Your task to perform on an android device: Open Amazon Image 0: 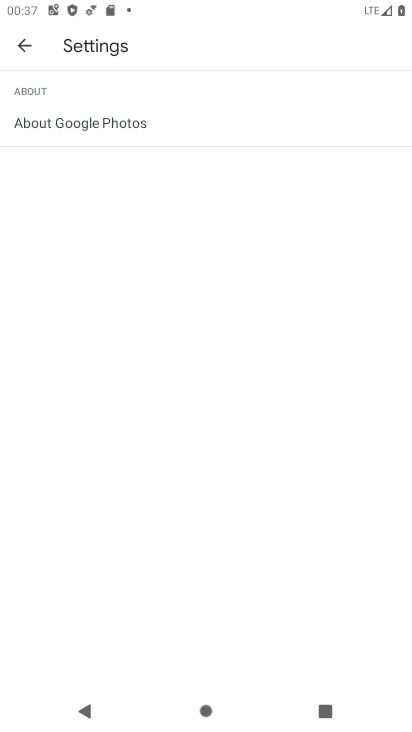
Step 0: press home button
Your task to perform on an android device: Open Amazon Image 1: 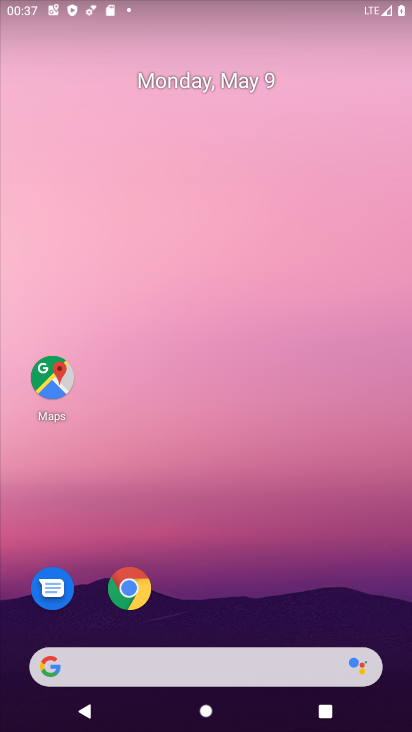
Step 1: click (130, 584)
Your task to perform on an android device: Open Amazon Image 2: 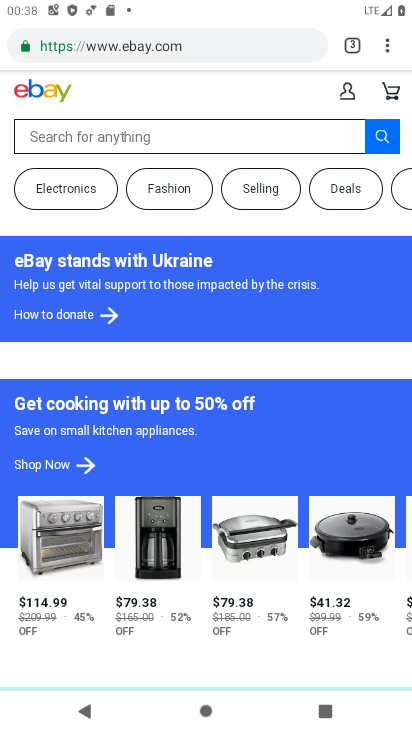
Step 2: click (389, 45)
Your task to perform on an android device: Open Amazon Image 3: 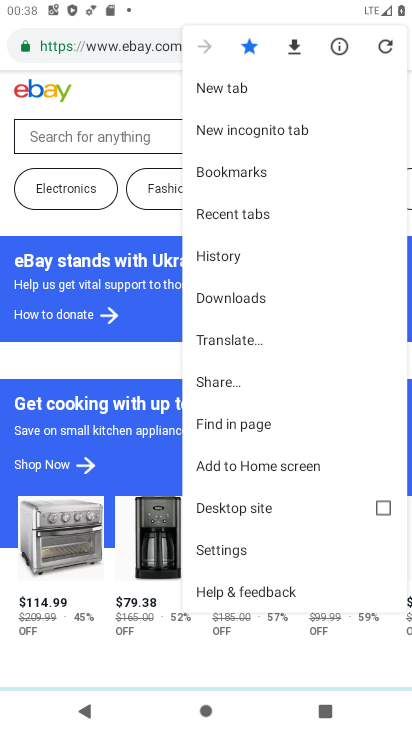
Step 3: click (227, 86)
Your task to perform on an android device: Open Amazon Image 4: 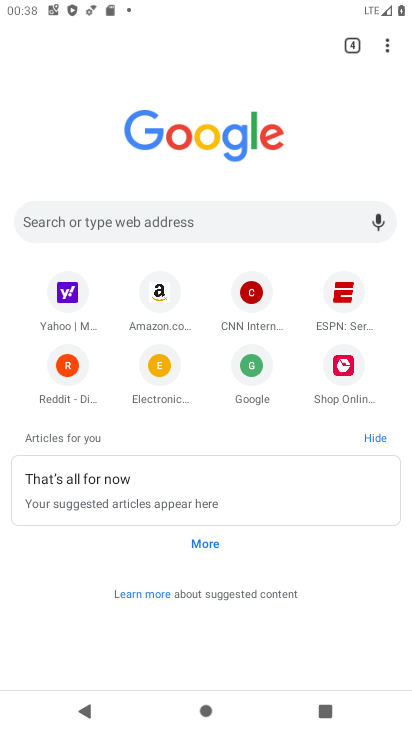
Step 4: click (159, 288)
Your task to perform on an android device: Open Amazon Image 5: 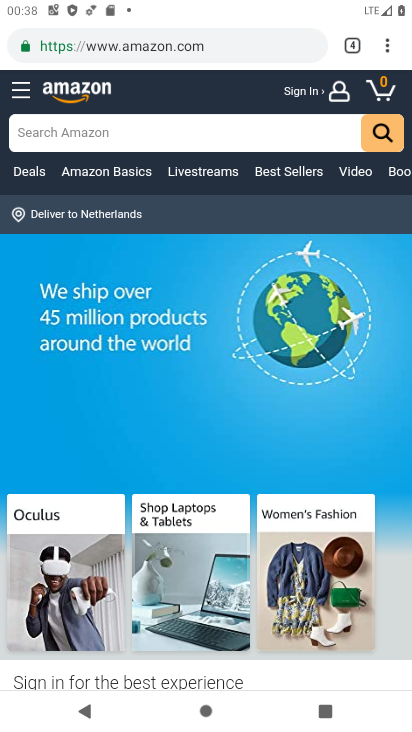
Step 5: task complete